Your task to perform on an android device: set an alarm Image 0: 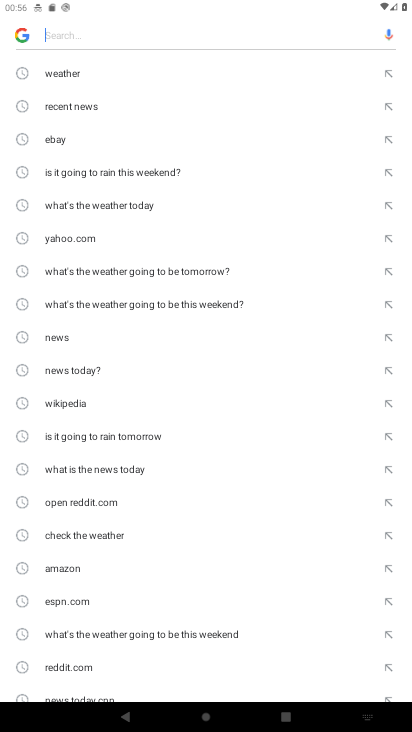
Step 0: press home button
Your task to perform on an android device: set an alarm Image 1: 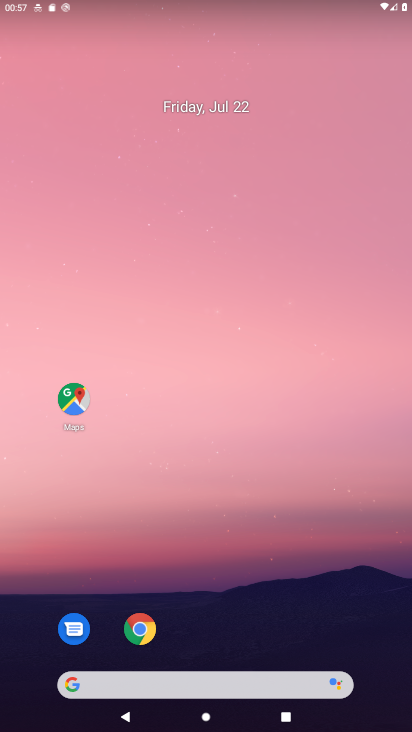
Step 1: drag from (256, 639) to (253, 315)
Your task to perform on an android device: set an alarm Image 2: 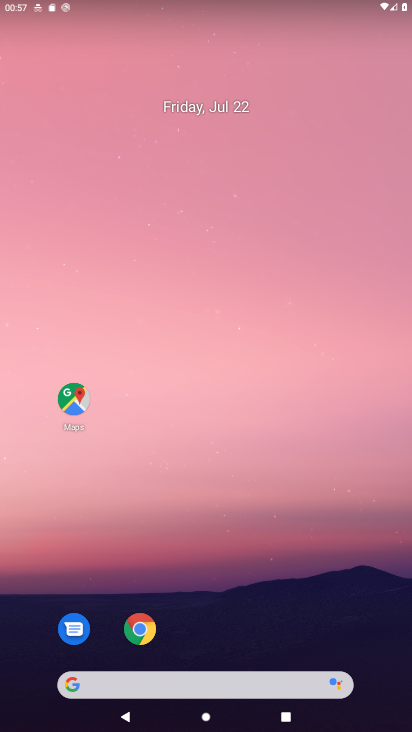
Step 2: drag from (246, 611) to (241, 114)
Your task to perform on an android device: set an alarm Image 3: 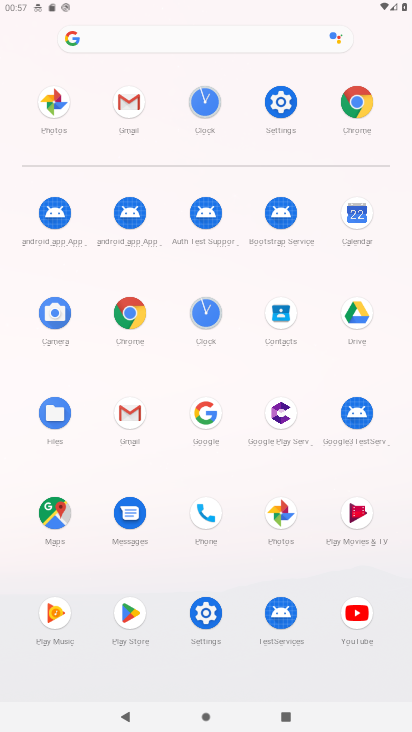
Step 3: click (213, 302)
Your task to perform on an android device: set an alarm Image 4: 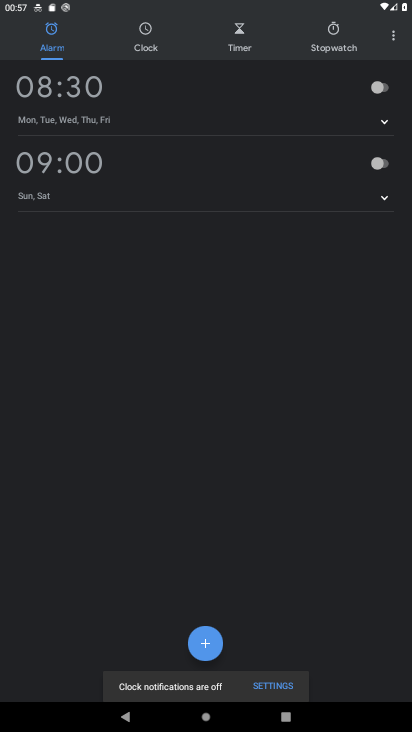
Step 4: click (384, 92)
Your task to perform on an android device: set an alarm Image 5: 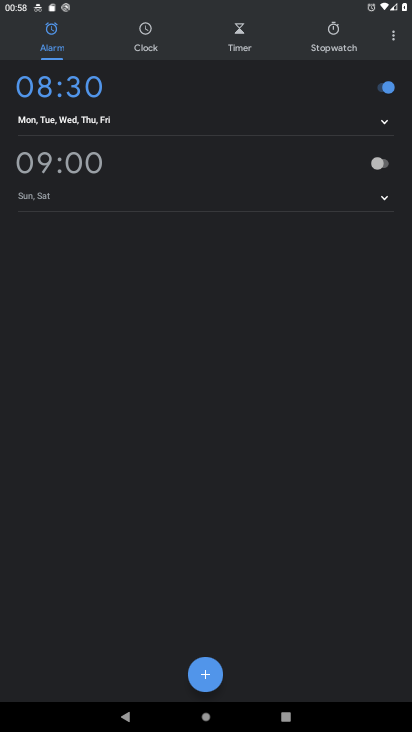
Step 5: task complete